Your task to perform on an android device: Open network settings Image 0: 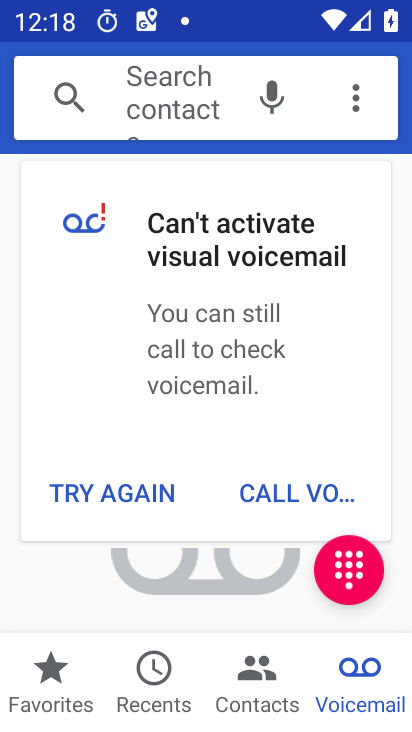
Step 0: drag from (209, 13) to (291, 731)
Your task to perform on an android device: Open network settings Image 1: 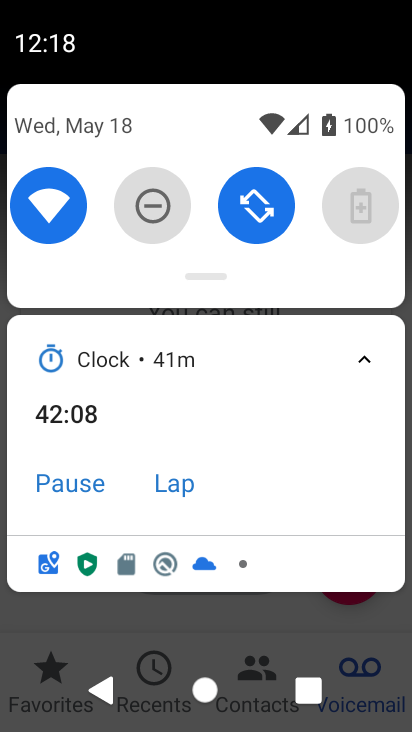
Step 1: drag from (270, 159) to (278, 668)
Your task to perform on an android device: Open network settings Image 2: 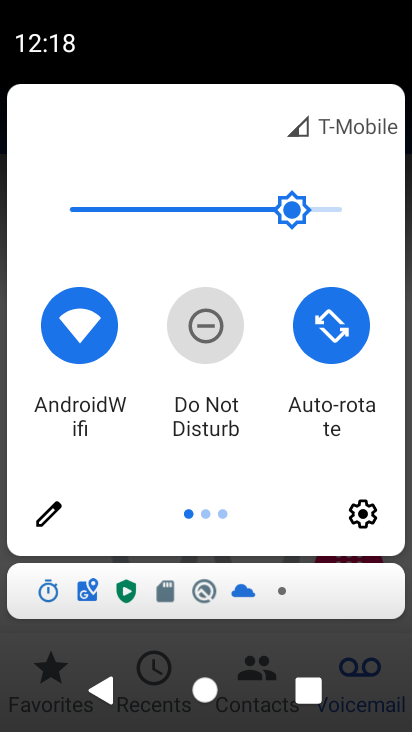
Step 2: drag from (387, 441) to (33, 460)
Your task to perform on an android device: Open network settings Image 3: 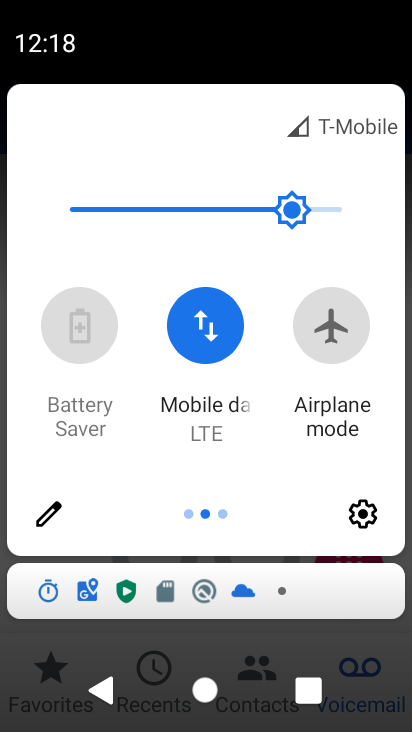
Step 3: click (217, 313)
Your task to perform on an android device: Open network settings Image 4: 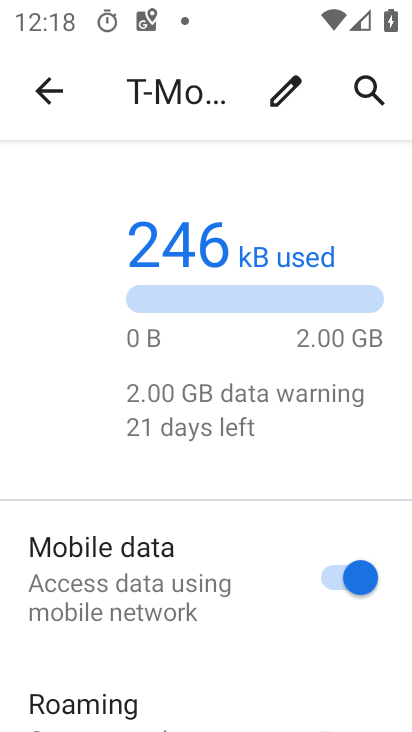
Step 4: task complete